Your task to perform on an android device: See recent photos Image 0: 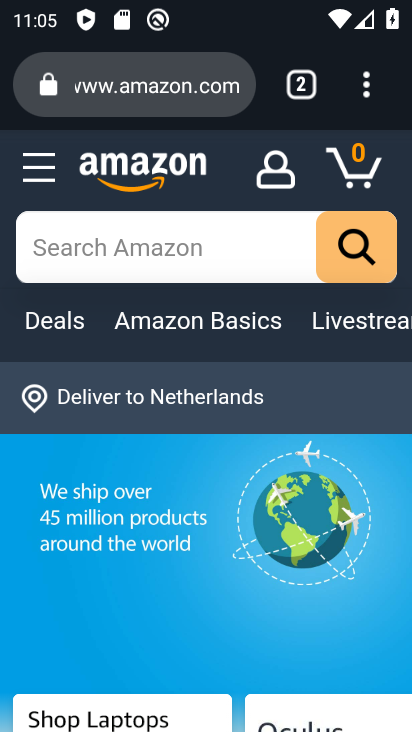
Step 0: press home button
Your task to perform on an android device: See recent photos Image 1: 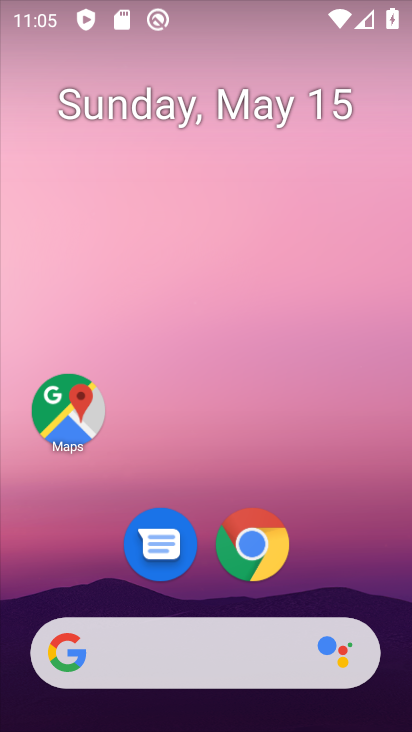
Step 1: drag from (333, 541) to (258, 64)
Your task to perform on an android device: See recent photos Image 2: 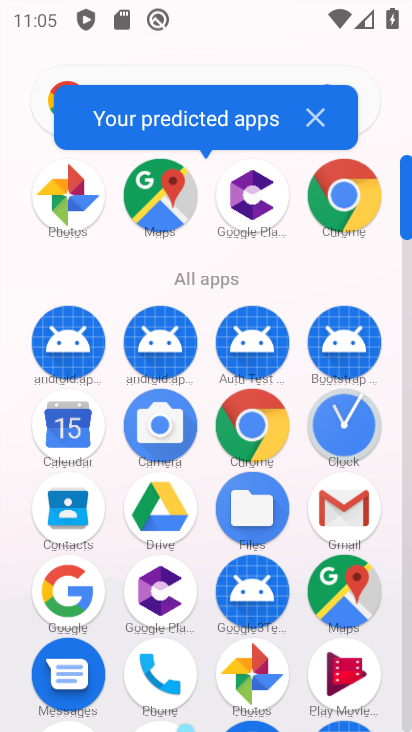
Step 2: click (60, 208)
Your task to perform on an android device: See recent photos Image 3: 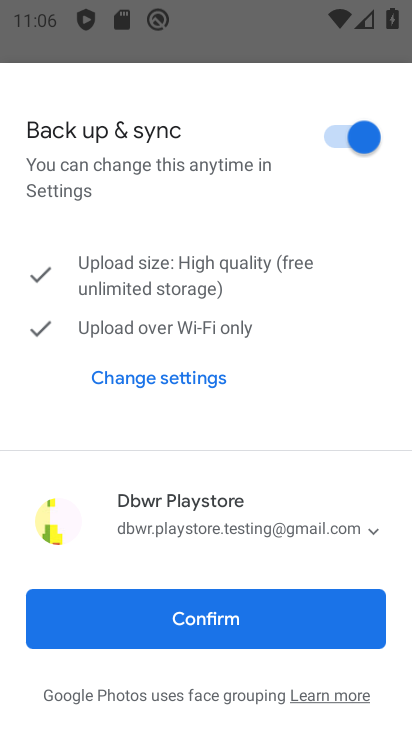
Step 3: click (221, 609)
Your task to perform on an android device: See recent photos Image 4: 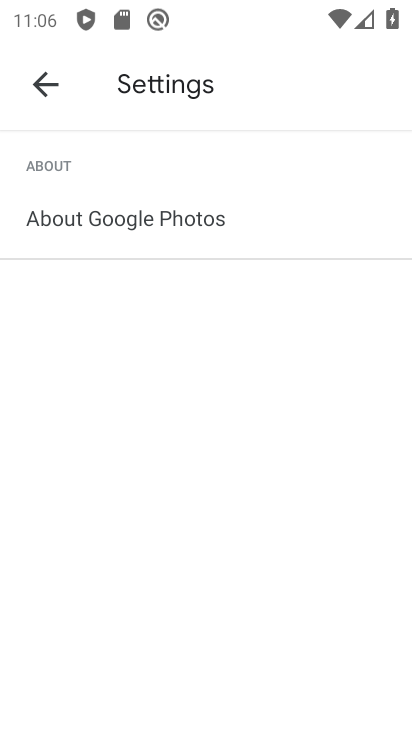
Step 4: click (39, 90)
Your task to perform on an android device: See recent photos Image 5: 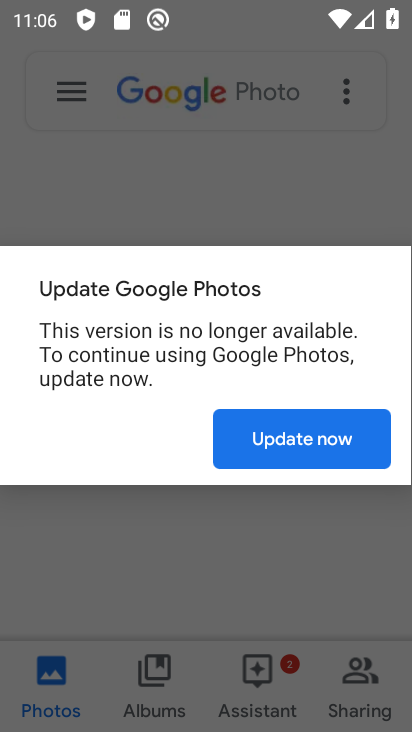
Step 5: click (324, 446)
Your task to perform on an android device: See recent photos Image 6: 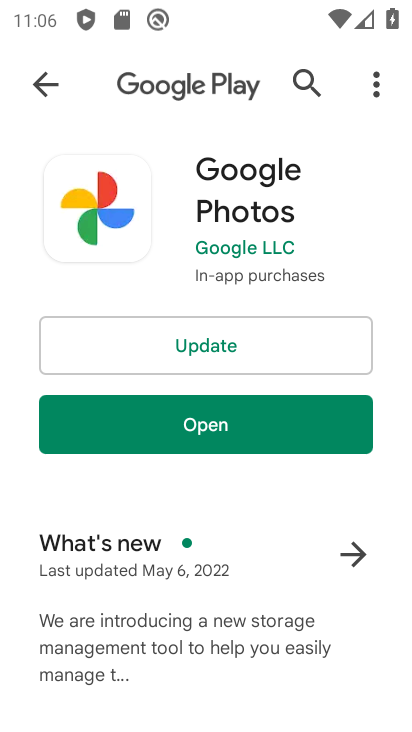
Step 6: click (302, 350)
Your task to perform on an android device: See recent photos Image 7: 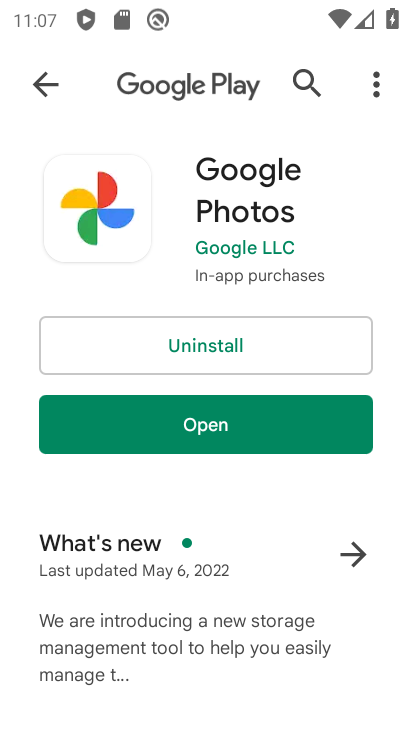
Step 7: click (317, 416)
Your task to perform on an android device: See recent photos Image 8: 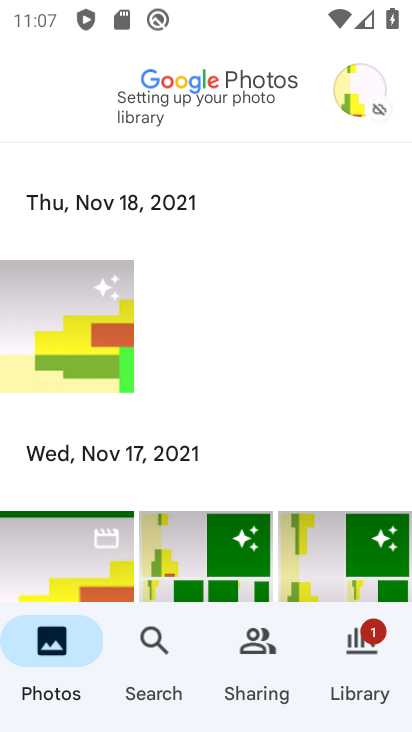
Step 8: task complete